Your task to perform on an android device: Open display settings Image 0: 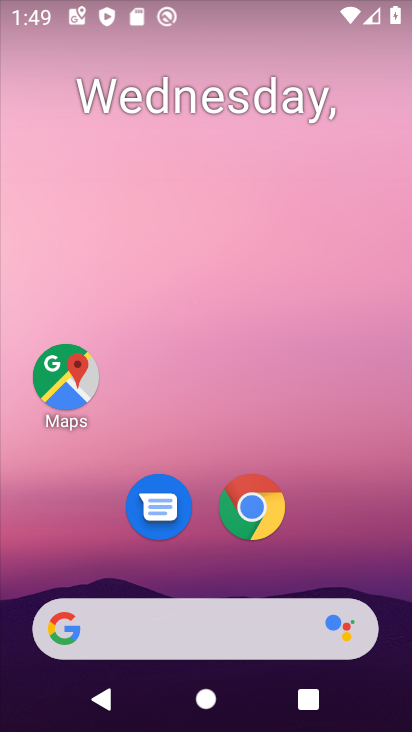
Step 0: drag from (241, 539) to (249, 224)
Your task to perform on an android device: Open display settings Image 1: 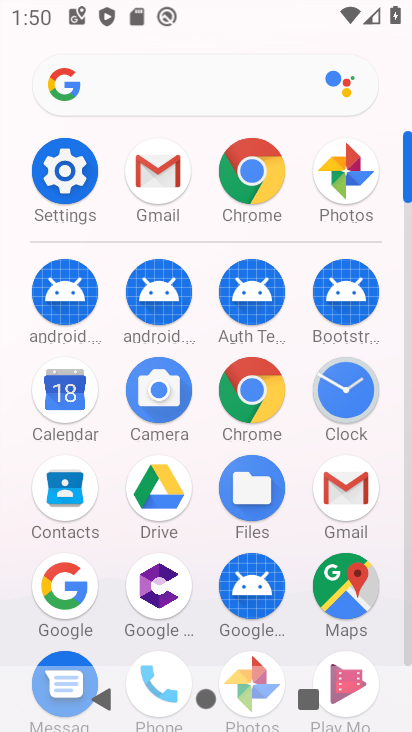
Step 1: click (73, 186)
Your task to perform on an android device: Open display settings Image 2: 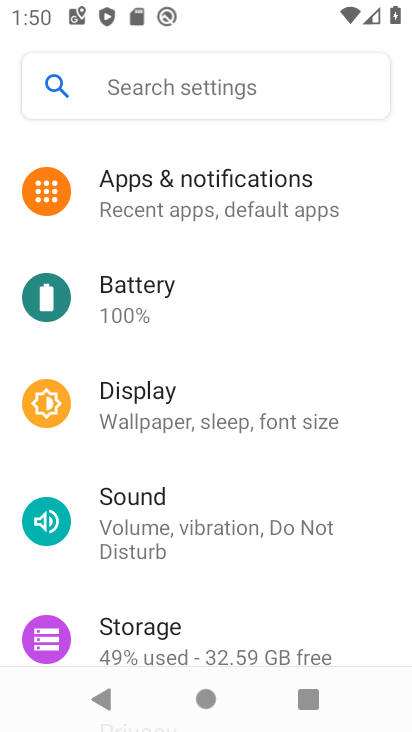
Step 2: click (164, 414)
Your task to perform on an android device: Open display settings Image 3: 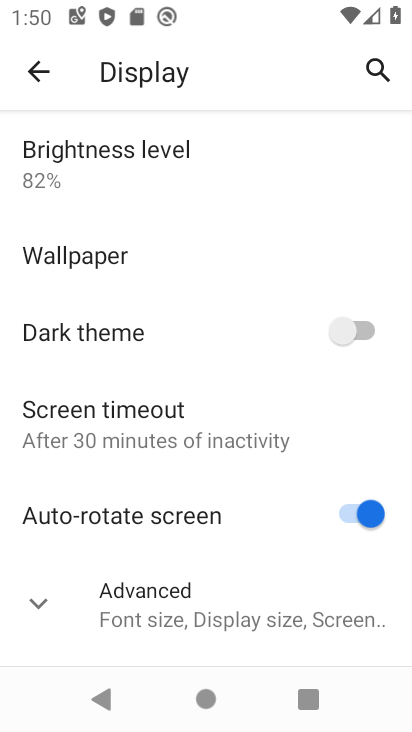
Step 3: task complete